Your task to perform on an android device: turn vacation reply on in the gmail app Image 0: 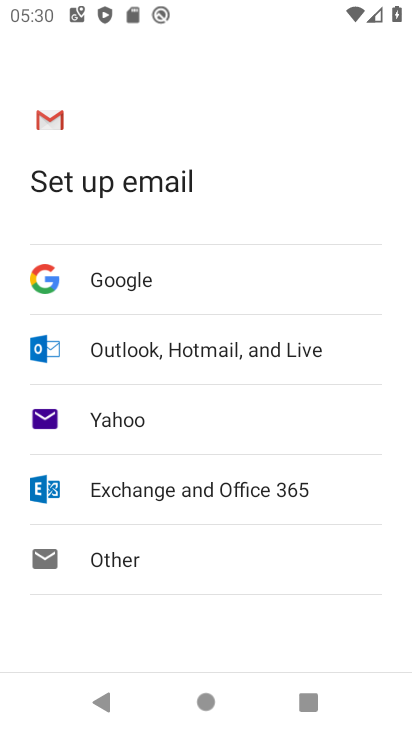
Step 0: press home button
Your task to perform on an android device: turn vacation reply on in the gmail app Image 1: 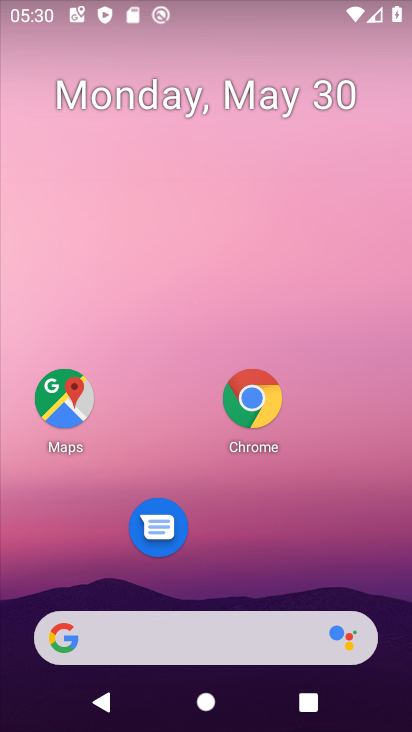
Step 1: drag from (239, 641) to (262, 3)
Your task to perform on an android device: turn vacation reply on in the gmail app Image 2: 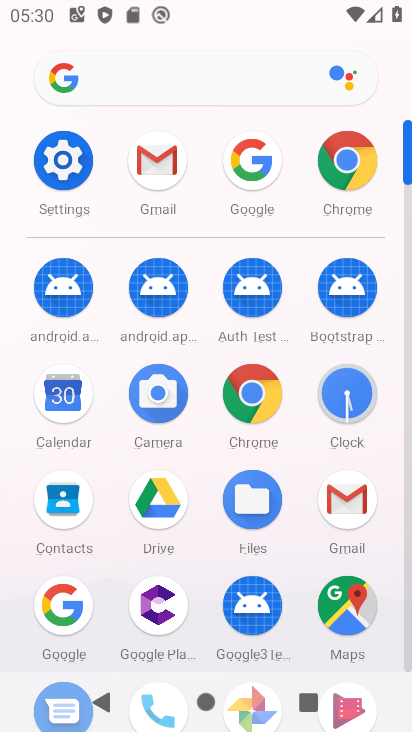
Step 2: click (158, 171)
Your task to perform on an android device: turn vacation reply on in the gmail app Image 3: 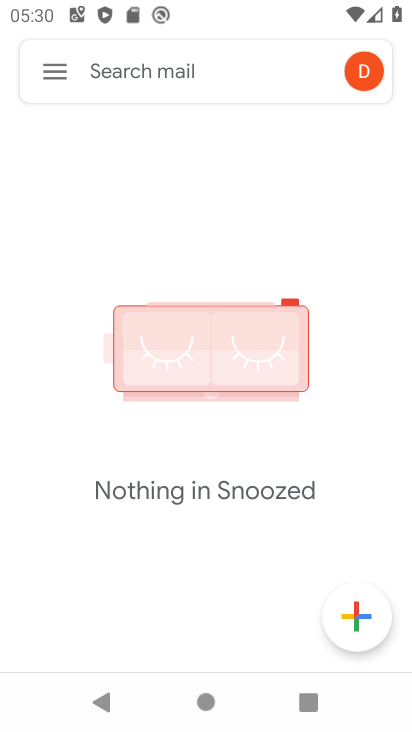
Step 3: click (51, 76)
Your task to perform on an android device: turn vacation reply on in the gmail app Image 4: 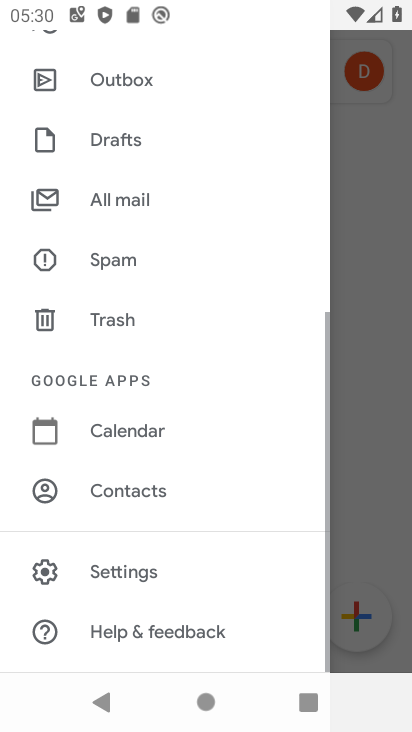
Step 4: click (117, 569)
Your task to perform on an android device: turn vacation reply on in the gmail app Image 5: 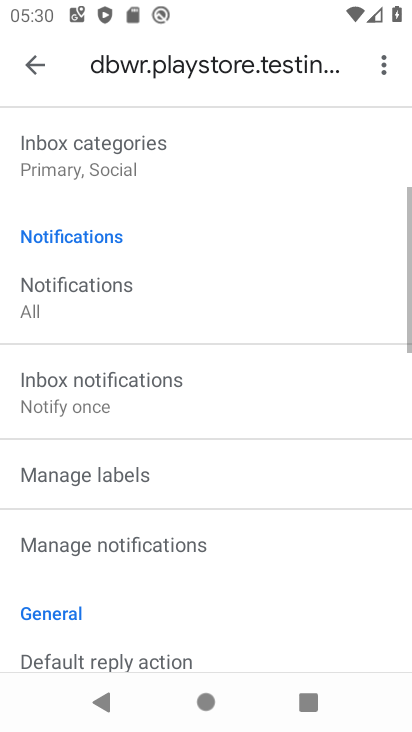
Step 5: drag from (197, 406) to (203, 191)
Your task to perform on an android device: turn vacation reply on in the gmail app Image 6: 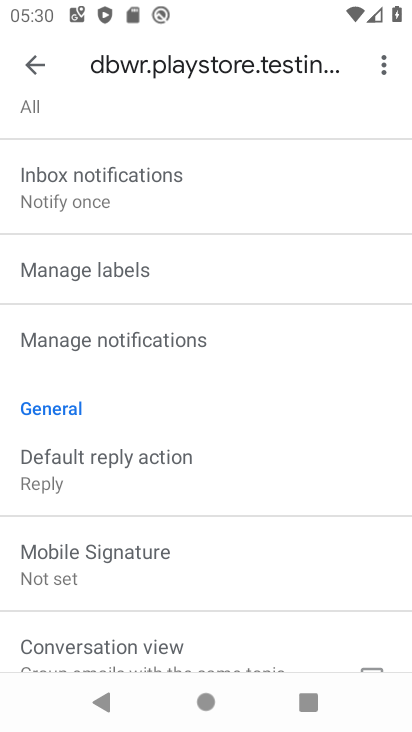
Step 6: drag from (180, 604) to (180, 204)
Your task to perform on an android device: turn vacation reply on in the gmail app Image 7: 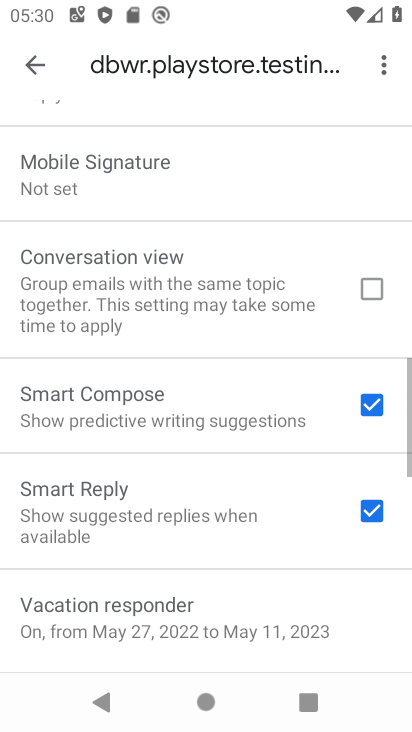
Step 7: click (187, 620)
Your task to perform on an android device: turn vacation reply on in the gmail app Image 8: 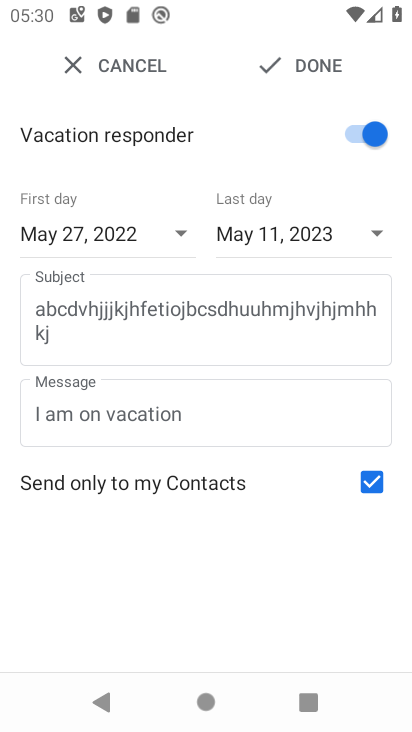
Step 8: task complete